Your task to perform on an android device: Open Wikipedia Image 0: 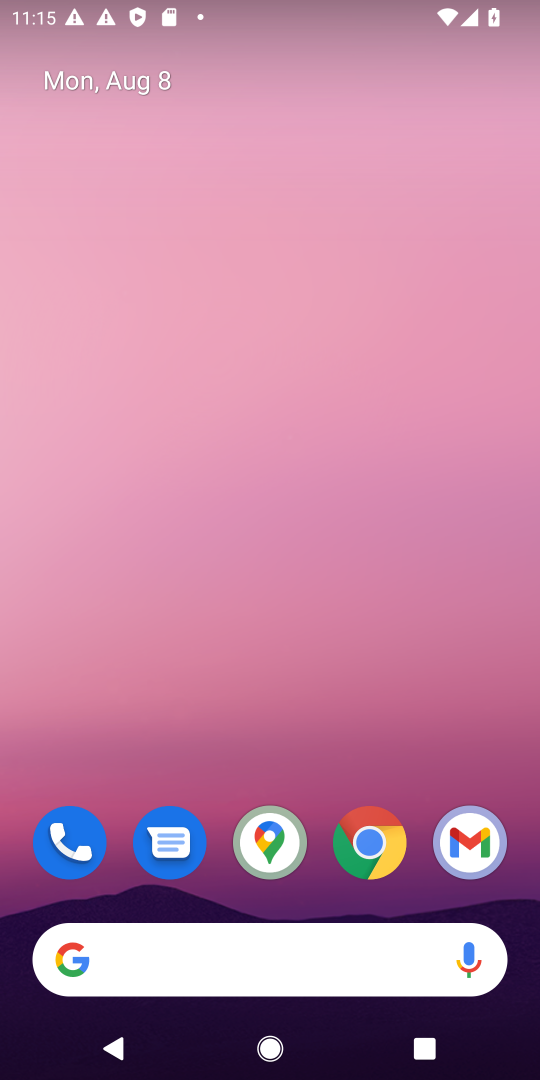
Step 0: click (352, 864)
Your task to perform on an android device: Open Wikipedia Image 1: 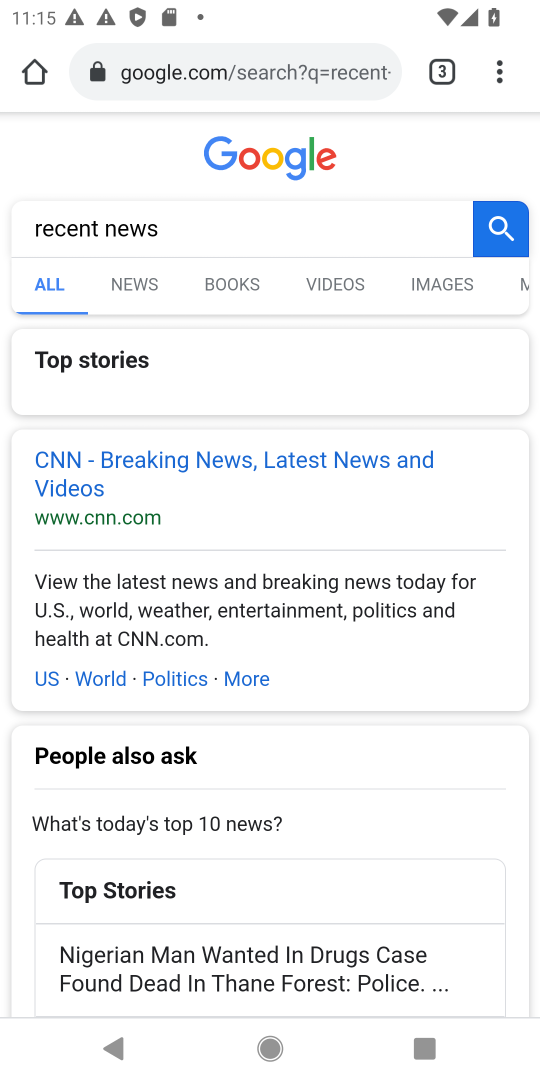
Step 1: click (437, 66)
Your task to perform on an android device: Open Wikipedia Image 2: 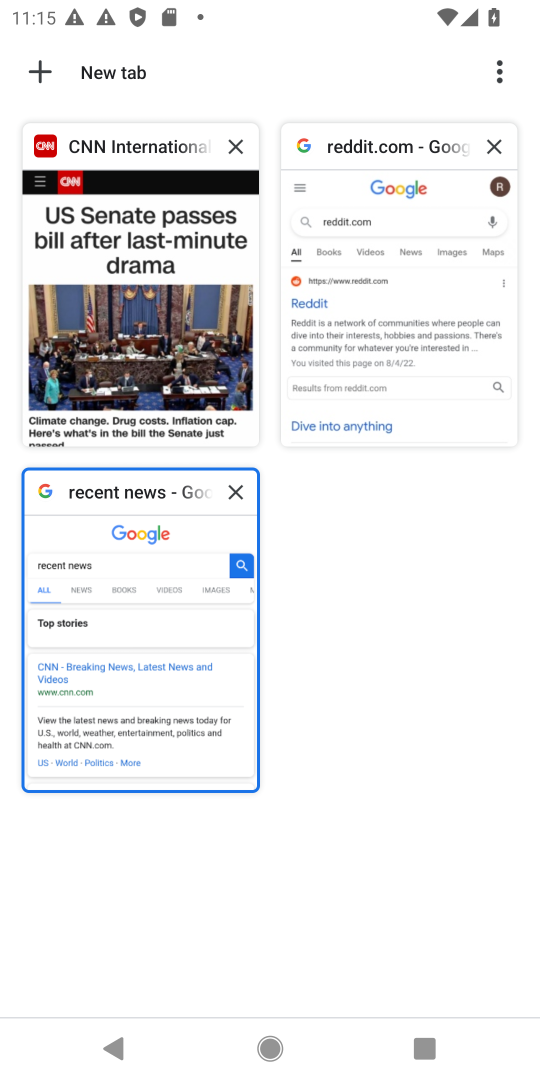
Step 2: click (43, 68)
Your task to perform on an android device: Open Wikipedia Image 3: 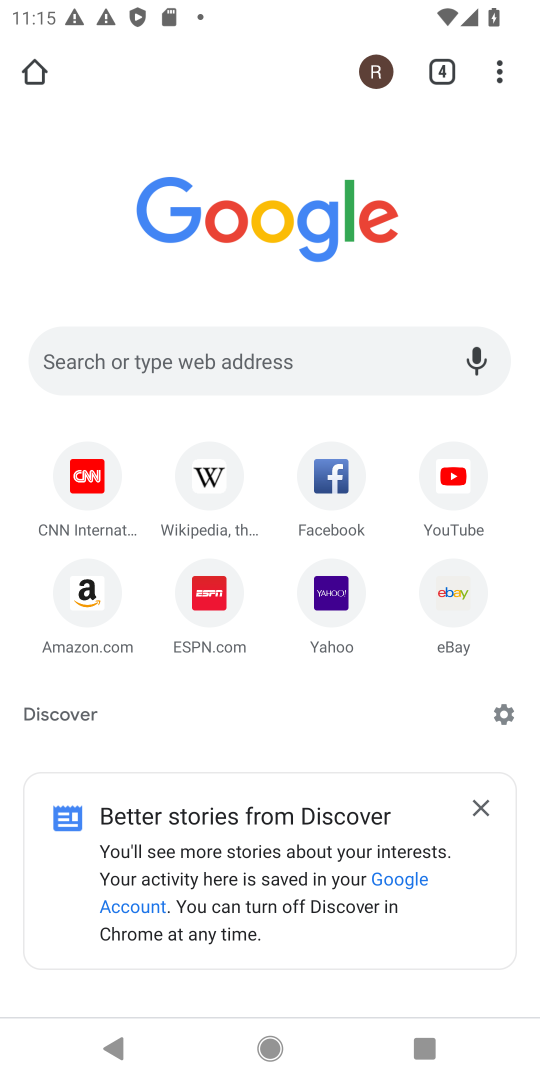
Step 3: click (216, 496)
Your task to perform on an android device: Open Wikipedia Image 4: 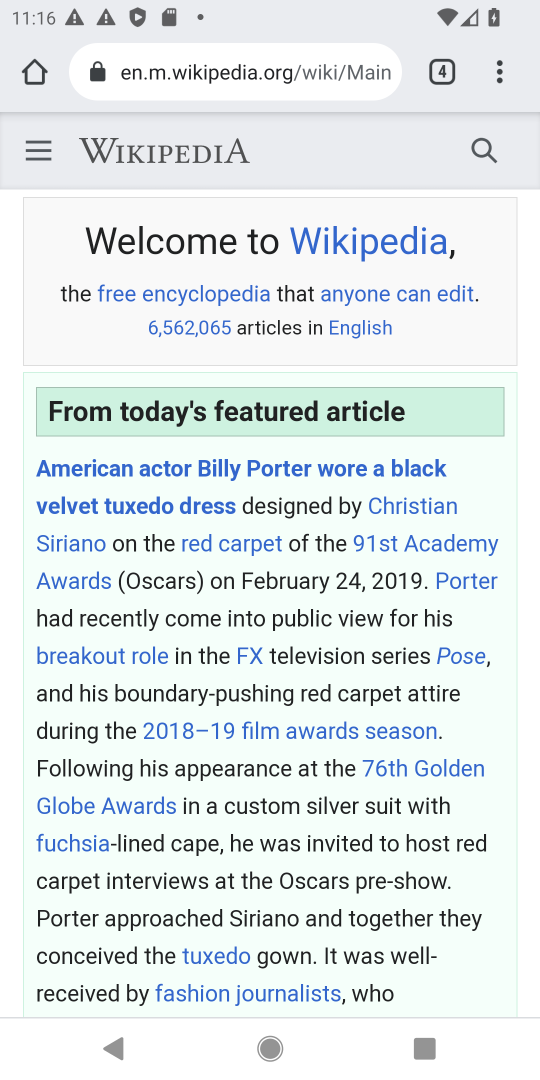
Step 4: task complete